Your task to perform on an android device: uninstall "Google Pay: Save, Pay, Manage" Image 0: 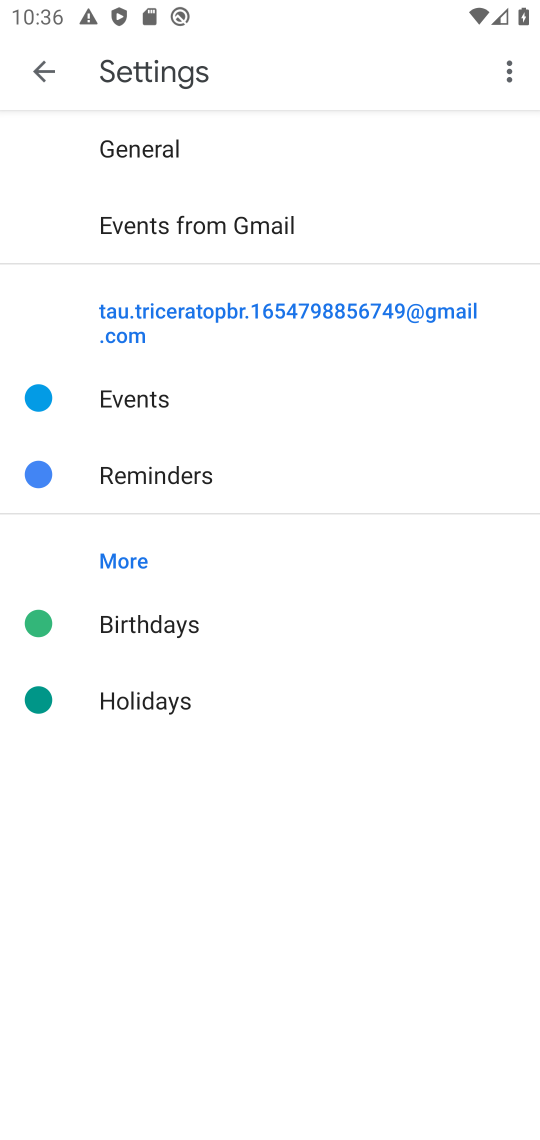
Step 0: press home button
Your task to perform on an android device: uninstall "Google Pay: Save, Pay, Manage" Image 1: 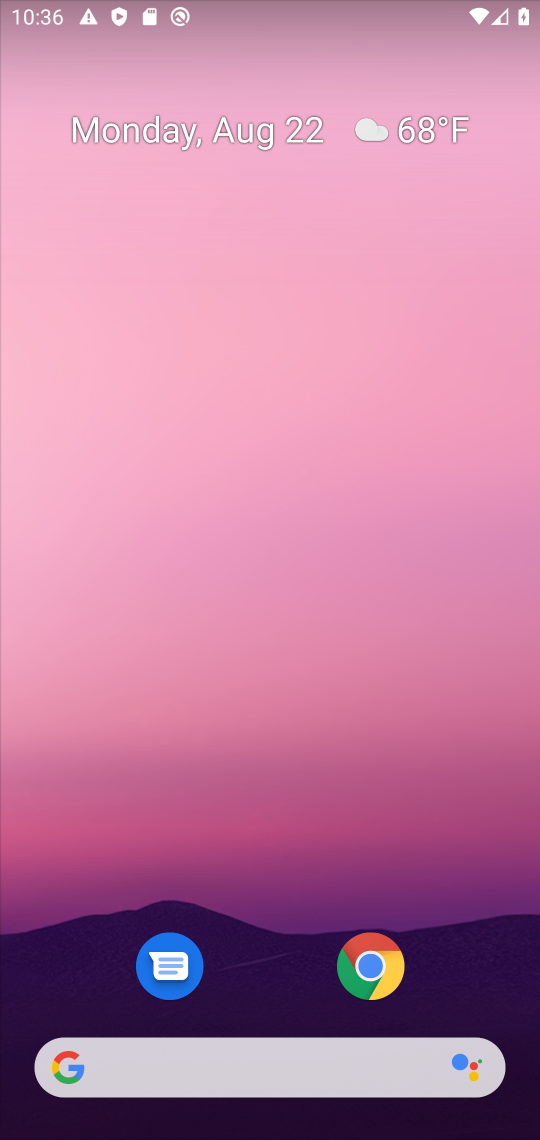
Step 1: drag from (436, 869) to (421, 63)
Your task to perform on an android device: uninstall "Google Pay: Save, Pay, Manage" Image 2: 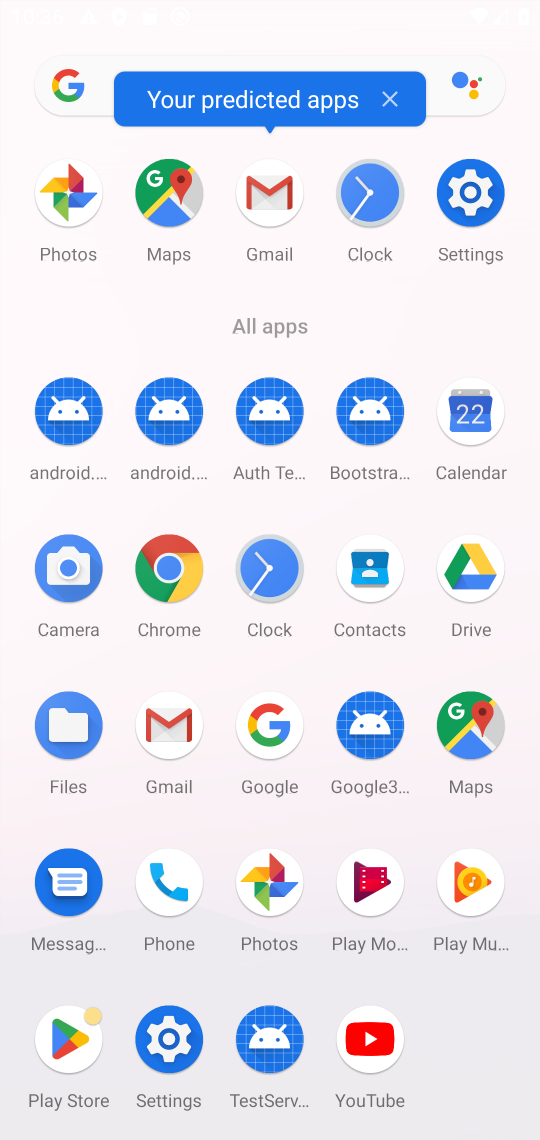
Step 2: click (52, 1031)
Your task to perform on an android device: uninstall "Google Pay: Save, Pay, Manage" Image 3: 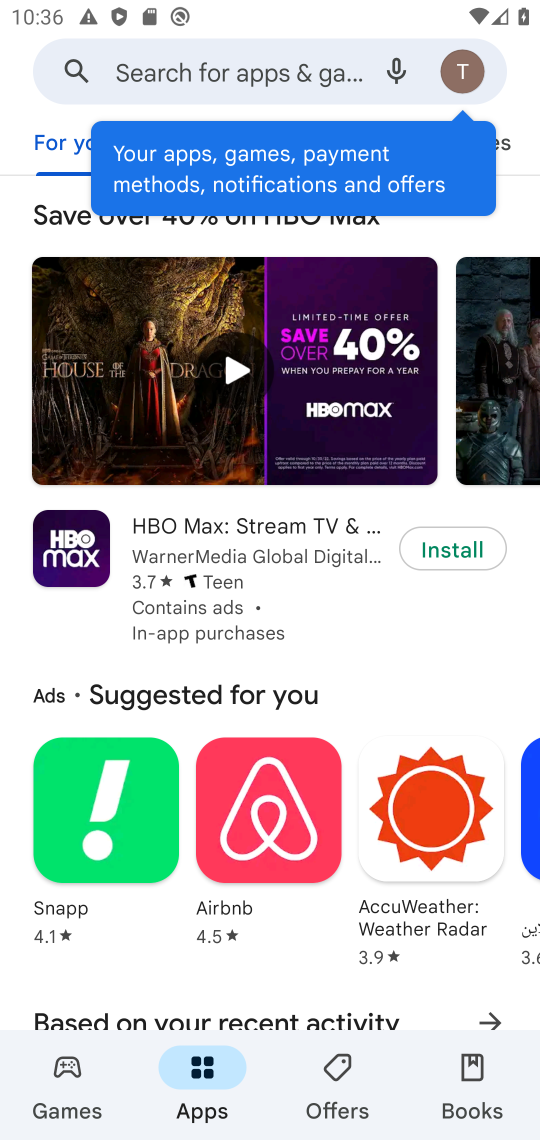
Step 3: click (212, 58)
Your task to perform on an android device: uninstall "Google Pay: Save, Pay, Manage" Image 4: 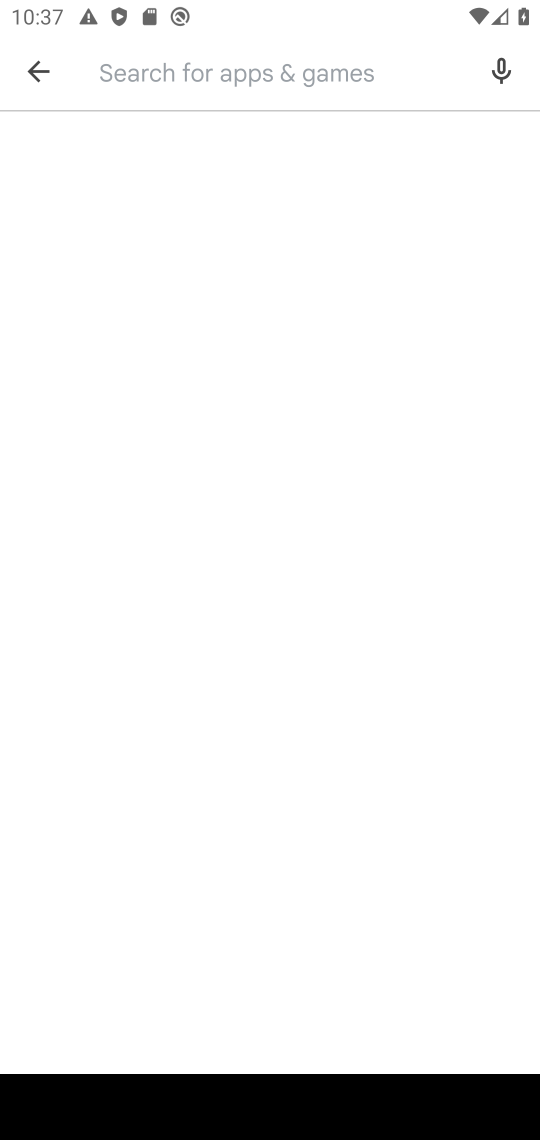
Step 4: type "Google Pay: Save, Pay, Manage"
Your task to perform on an android device: uninstall "Google Pay: Save, Pay, Manage" Image 5: 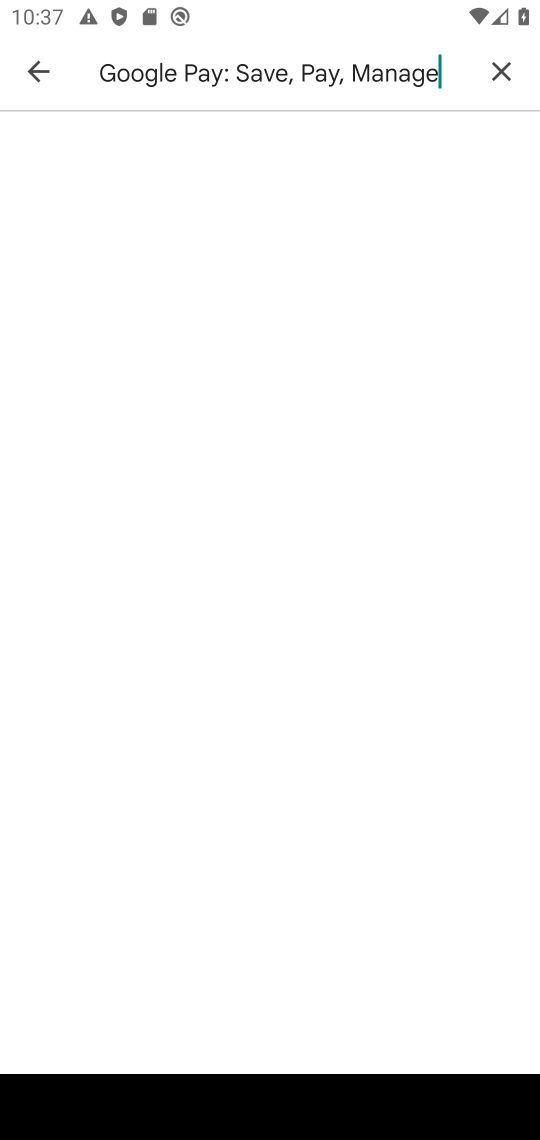
Step 5: press enter
Your task to perform on an android device: uninstall "Google Pay: Save, Pay, Manage" Image 6: 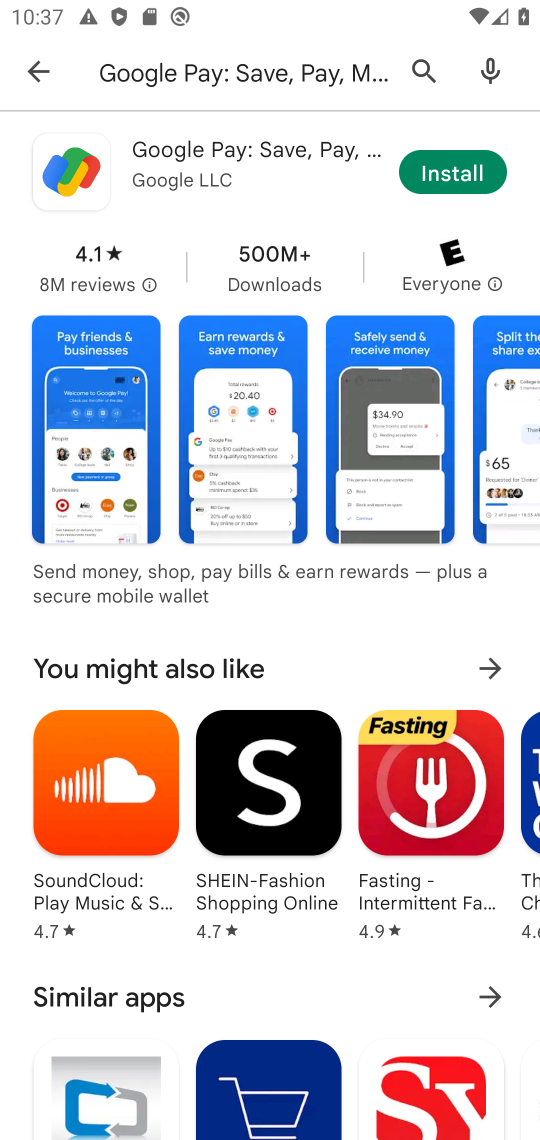
Step 6: task complete